Your task to perform on an android device: Open internet settings Image 0: 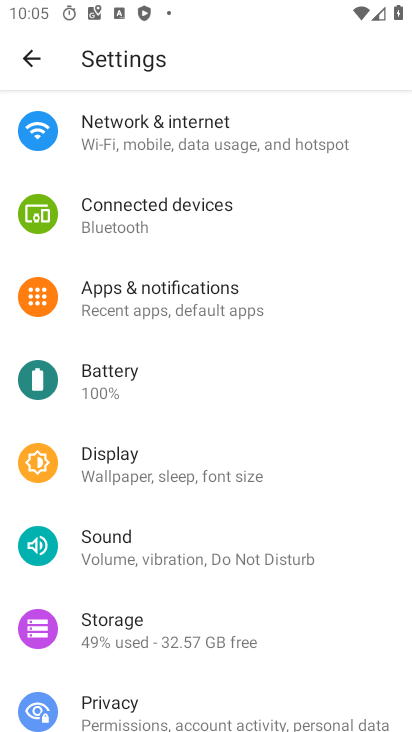
Step 0: click (216, 143)
Your task to perform on an android device: Open internet settings Image 1: 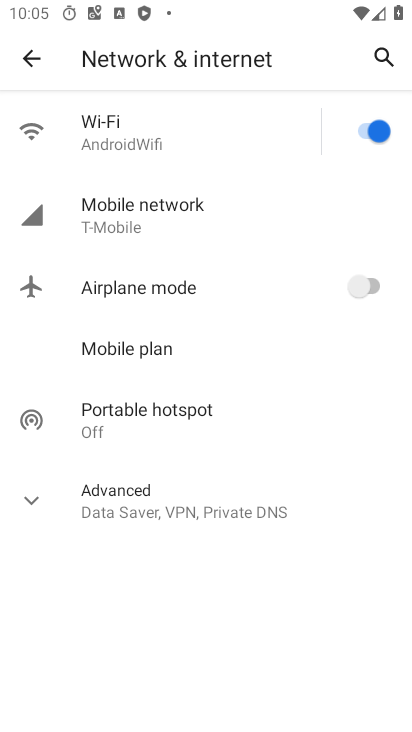
Step 1: task complete